Your task to perform on an android device: See recent photos Image 0: 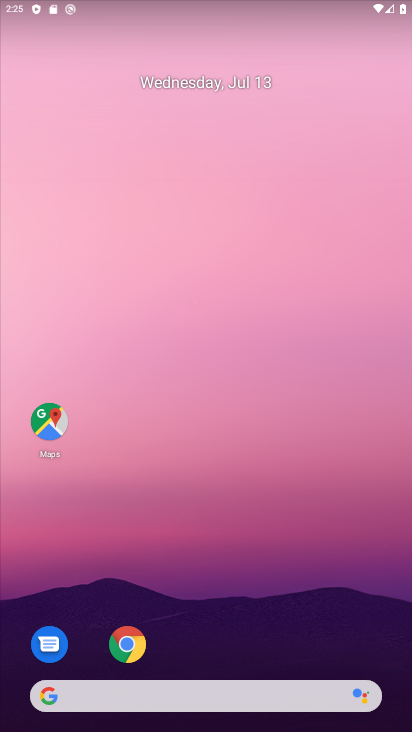
Step 0: drag from (185, 647) to (222, 145)
Your task to perform on an android device: See recent photos Image 1: 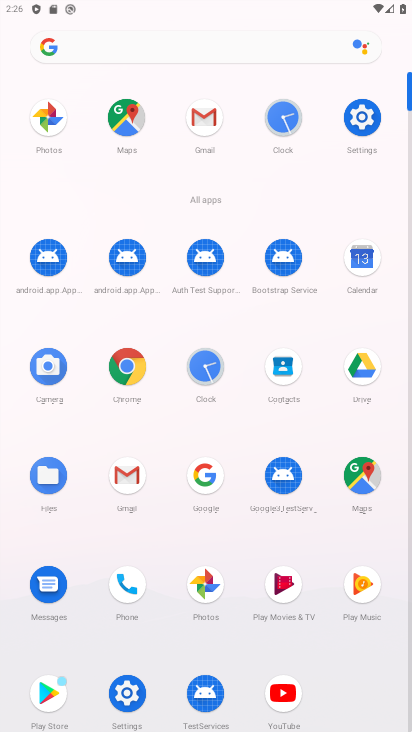
Step 1: click (199, 595)
Your task to perform on an android device: See recent photos Image 2: 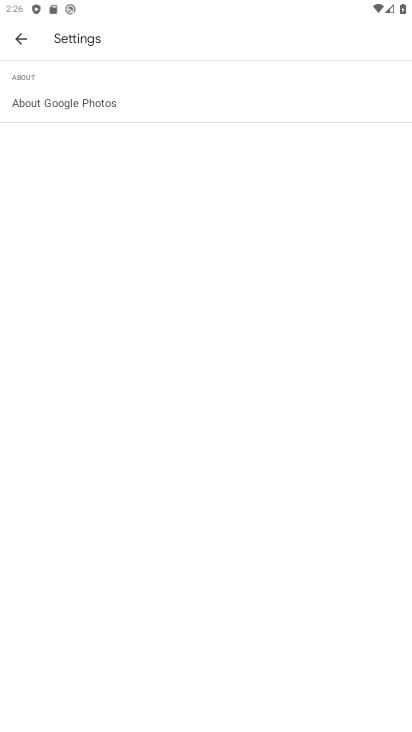
Step 2: press back button
Your task to perform on an android device: See recent photos Image 3: 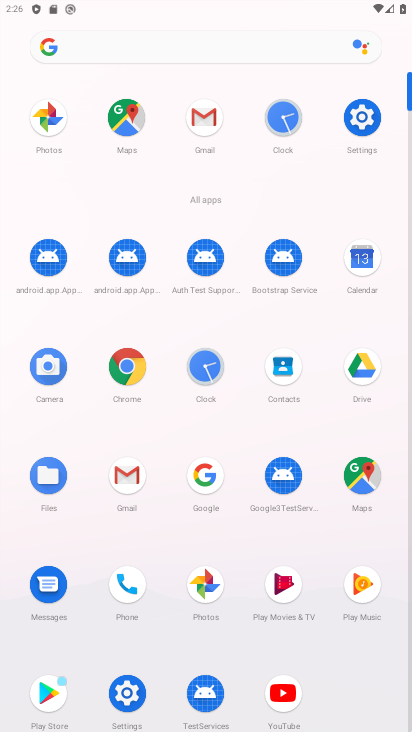
Step 3: click (201, 586)
Your task to perform on an android device: See recent photos Image 4: 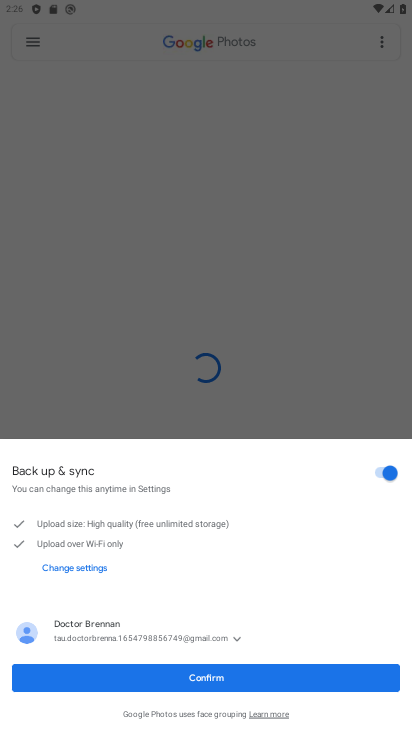
Step 4: click (194, 678)
Your task to perform on an android device: See recent photos Image 5: 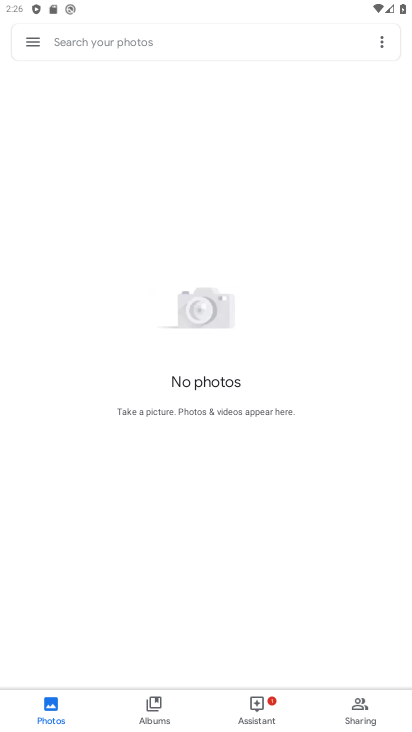
Step 5: task complete